Your task to perform on an android device: check the backup settings in the google photos Image 0: 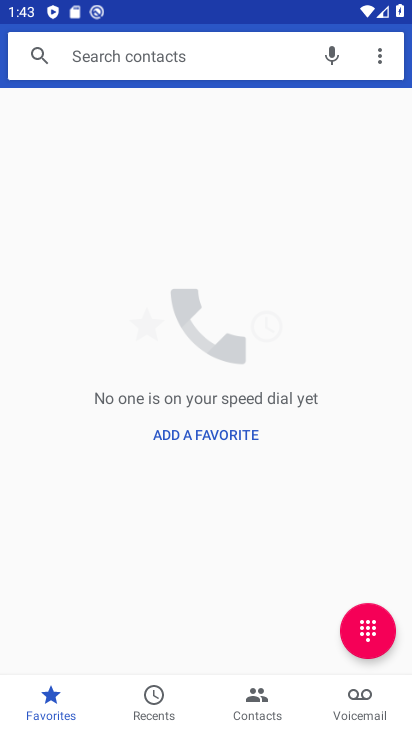
Step 0: press home button
Your task to perform on an android device: check the backup settings in the google photos Image 1: 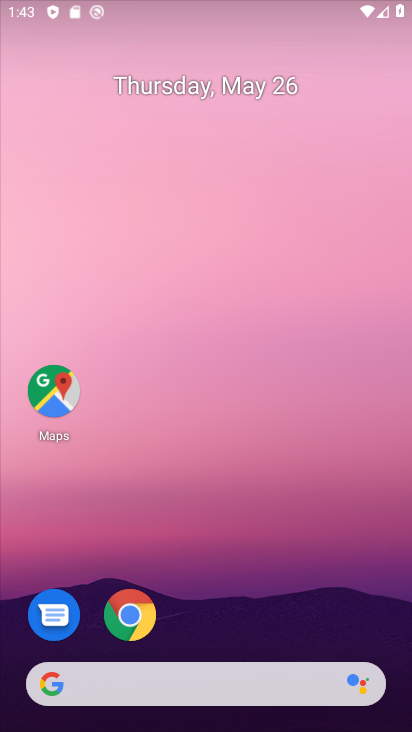
Step 1: click (211, 179)
Your task to perform on an android device: check the backup settings in the google photos Image 2: 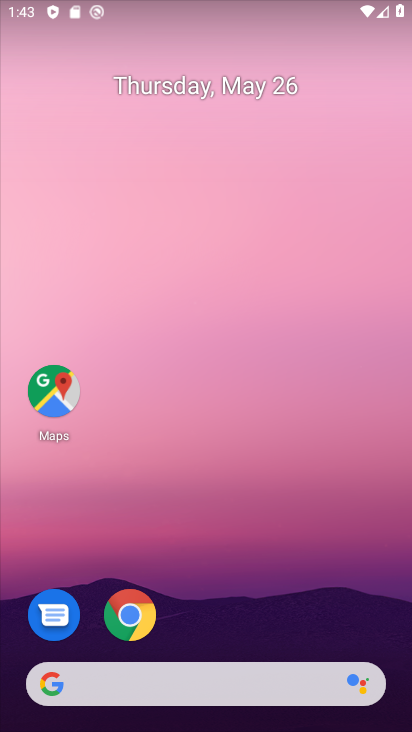
Step 2: drag from (219, 628) to (213, 148)
Your task to perform on an android device: check the backup settings in the google photos Image 3: 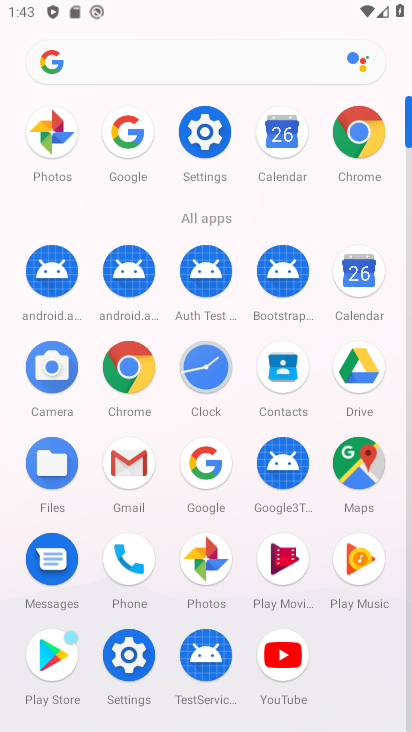
Step 3: click (197, 542)
Your task to perform on an android device: check the backup settings in the google photos Image 4: 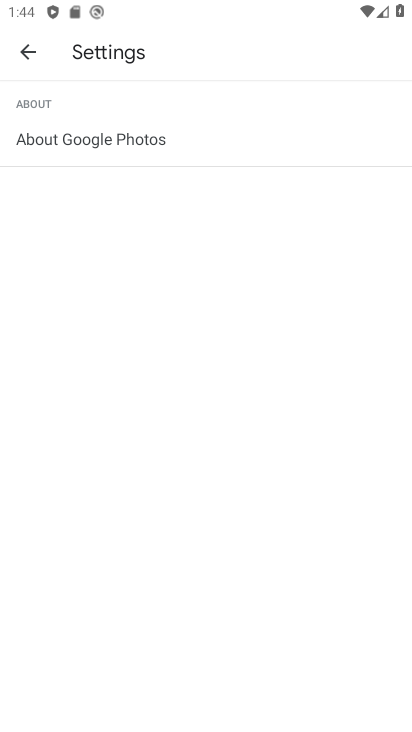
Step 4: click (37, 52)
Your task to perform on an android device: check the backup settings in the google photos Image 5: 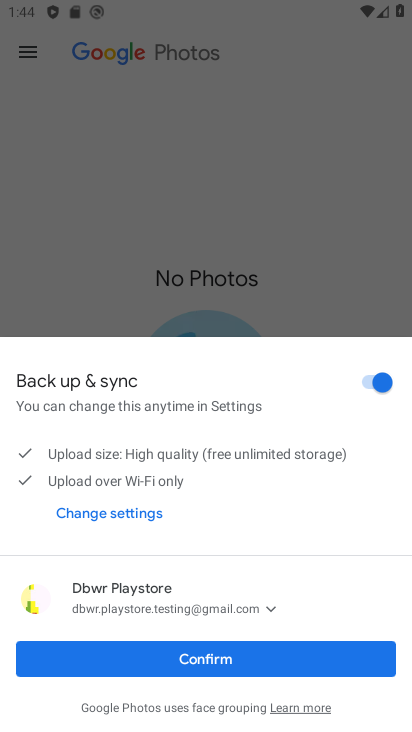
Step 5: click (190, 242)
Your task to perform on an android device: check the backup settings in the google photos Image 6: 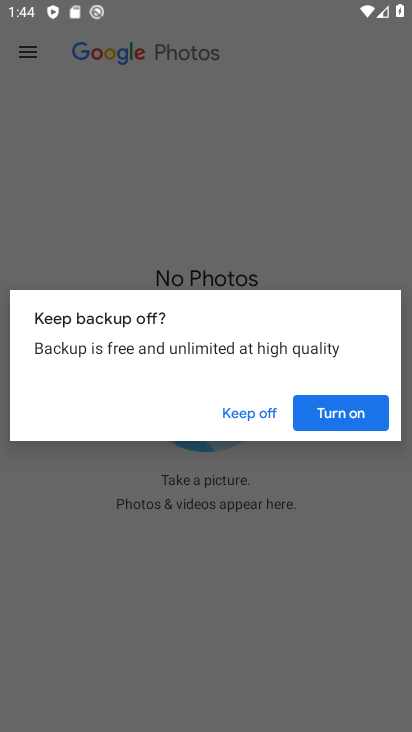
Step 6: click (260, 410)
Your task to perform on an android device: check the backup settings in the google photos Image 7: 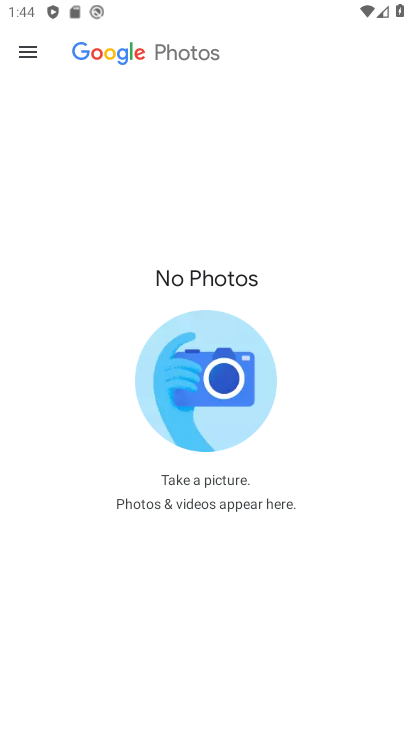
Step 7: click (32, 47)
Your task to perform on an android device: check the backup settings in the google photos Image 8: 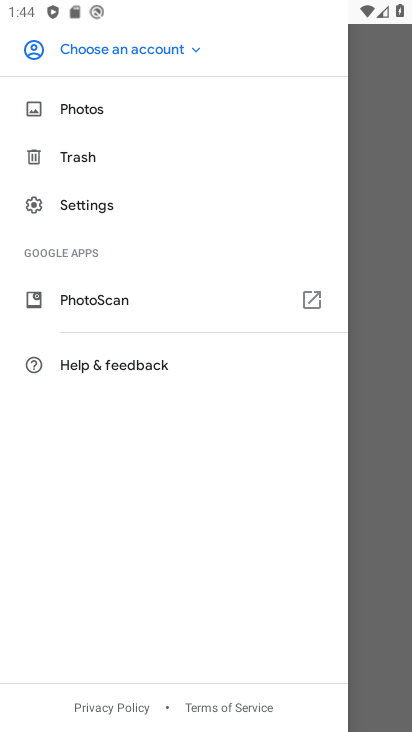
Step 8: click (108, 203)
Your task to perform on an android device: check the backup settings in the google photos Image 9: 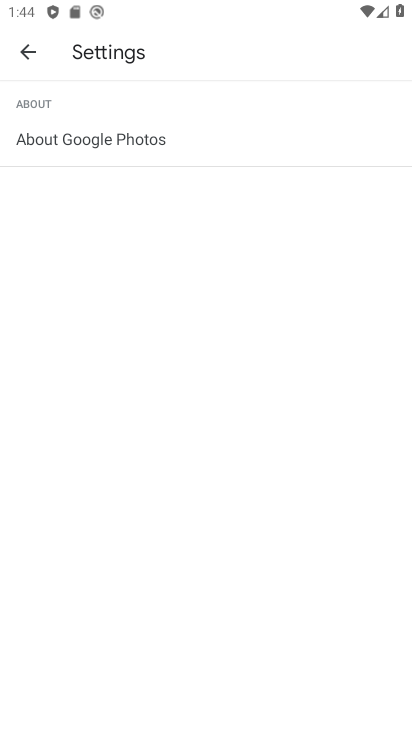
Step 9: click (122, 148)
Your task to perform on an android device: check the backup settings in the google photos Image 10: 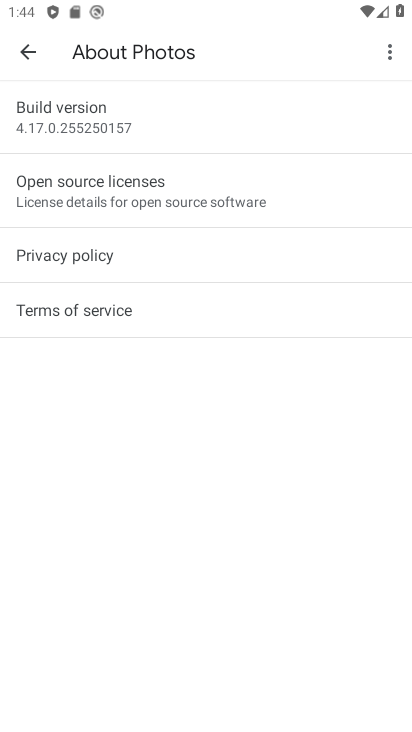
Step 10: click (23, 53)
Your task to perform on an android device: check the backup settings in the google photos Image 11: 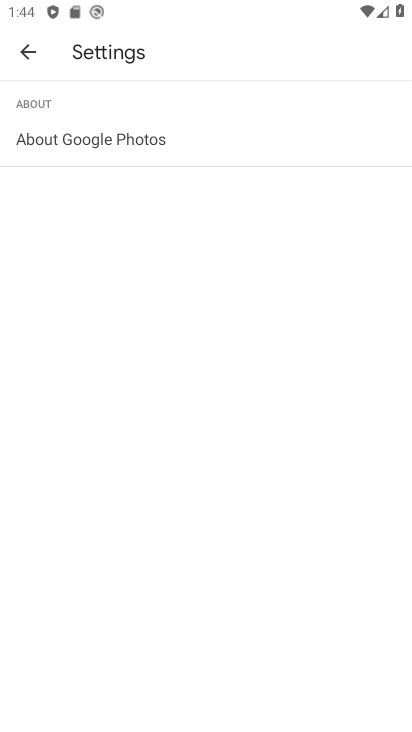
Step 11: click (23, 53)
Your task to perform on an android device: check the backup settings in the google photos Image 12: 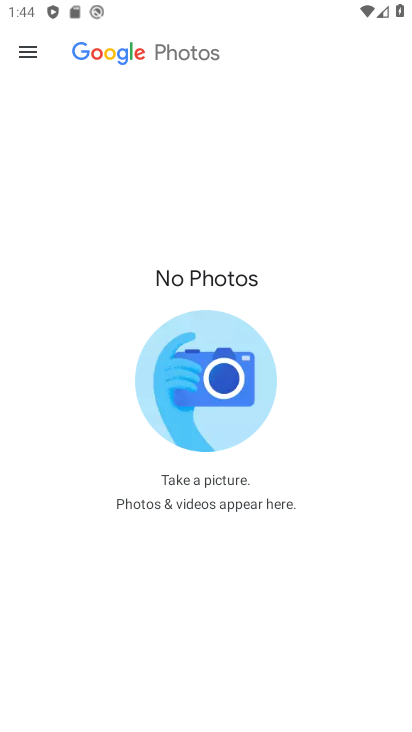
Step 12: click (29, 45)
Your task to perform on an android device: check the backup settings in the google photos Image 13: 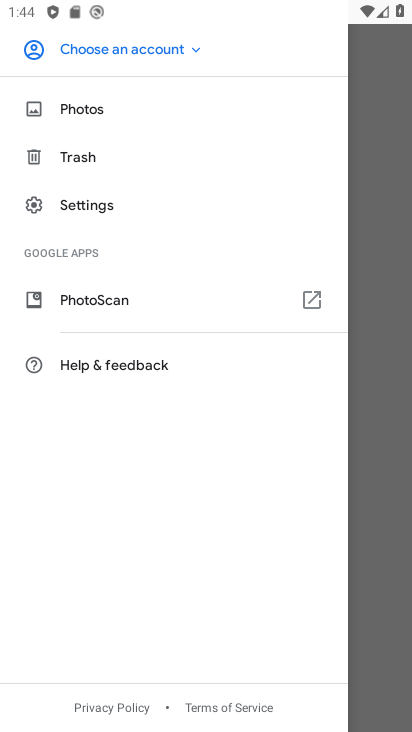
Step 13: task complete